Your task to perform on an android device: Turn on the flashlight Image 0: 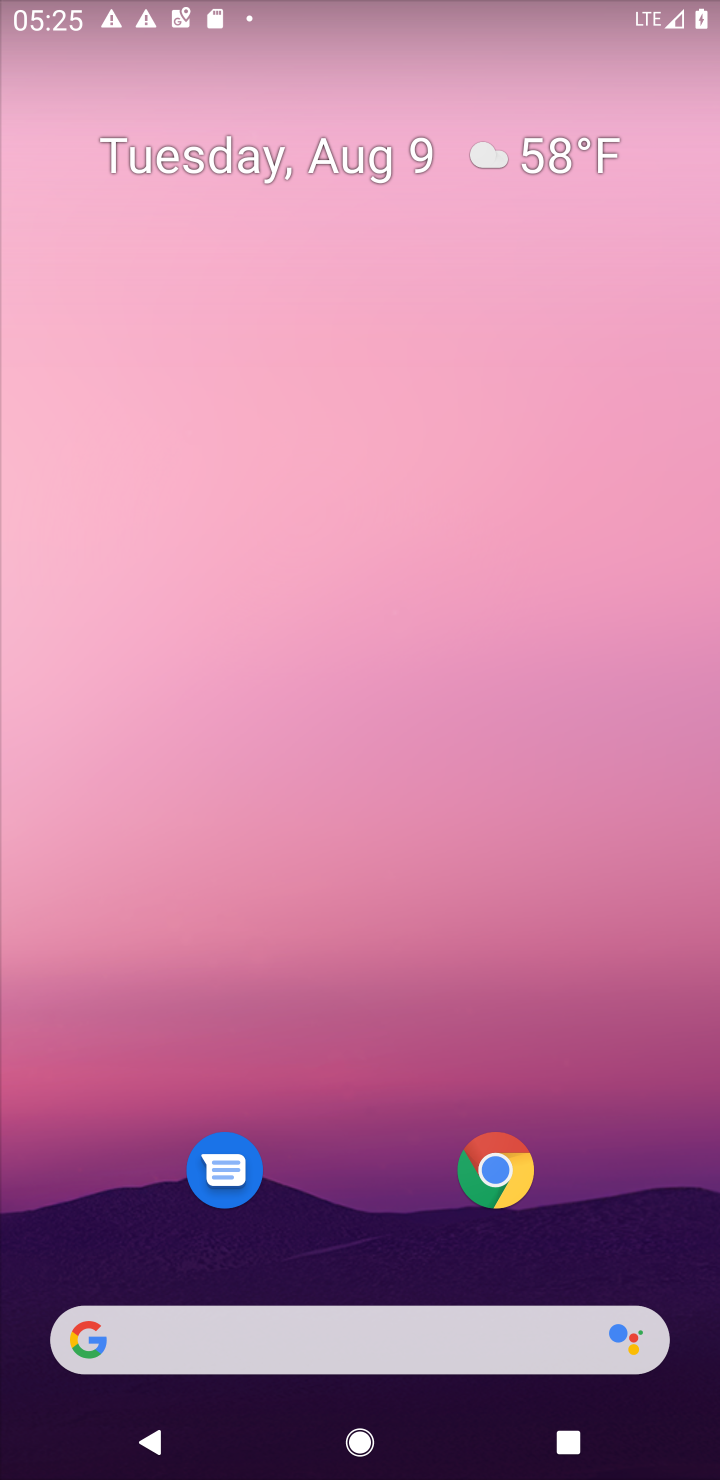
Step 0: press home button
Your task to perform on an android device: Turn on the flashlight Image 1: 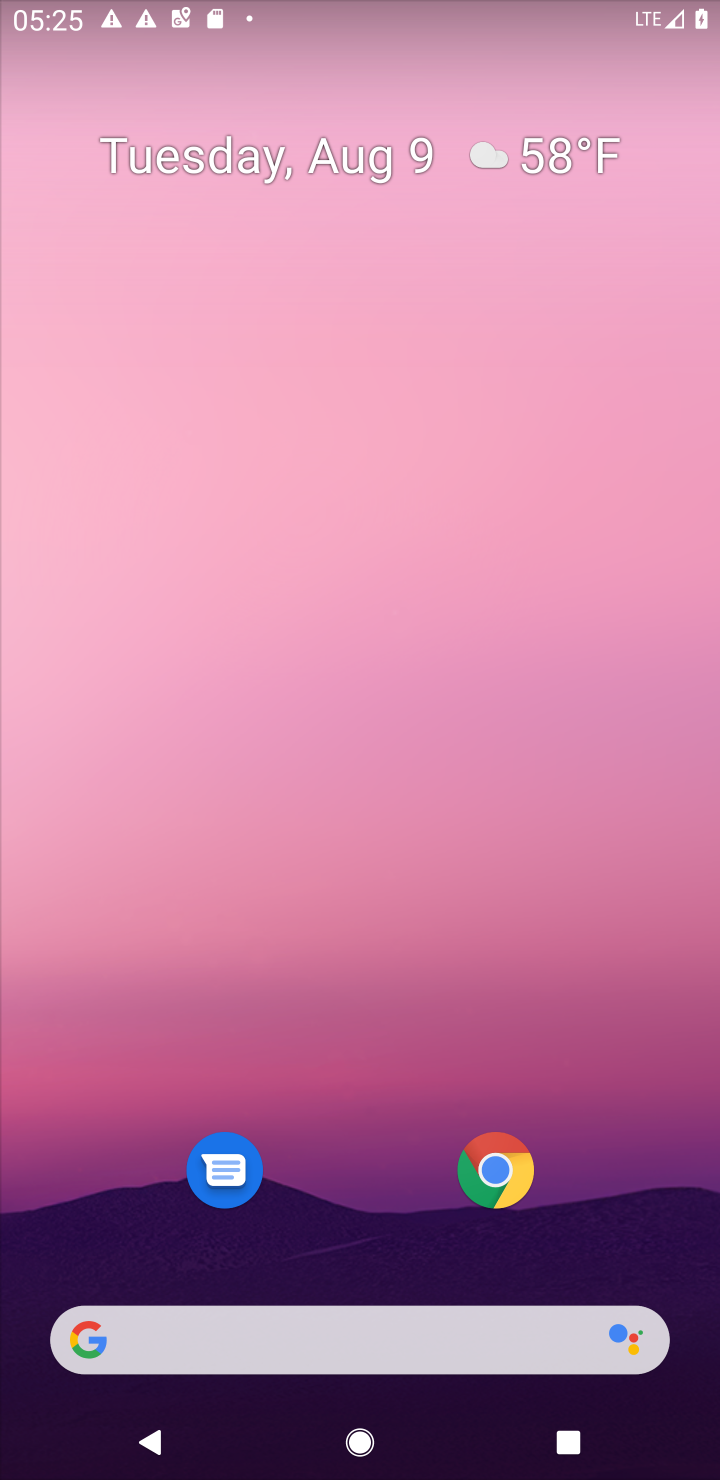
Step 1: task complete